Your task to perform on an android device: Open the calendar and show me this week's events Image 0: 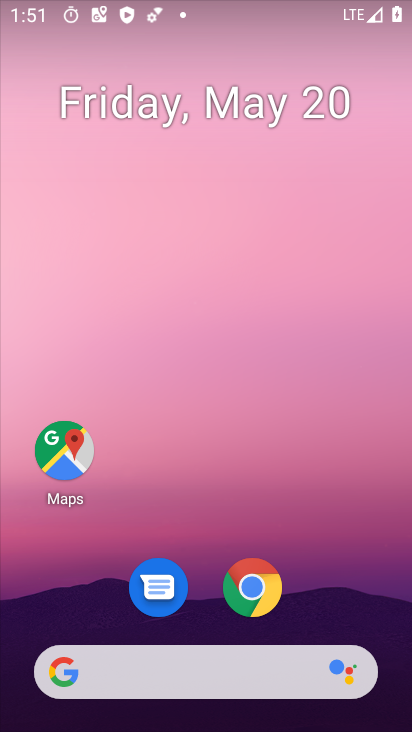
Step 0: drag from (331, 547) to (303, 139)
Your task to perform on an android device: Open the calendar and show me this week's events Image 1: 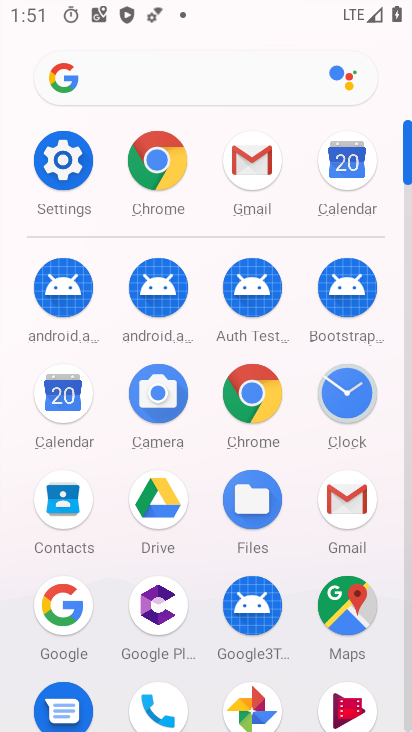
Step 1: click (56, 401)
Your task to perform on an android device: Open the calendar and show me this week's events Image 2: 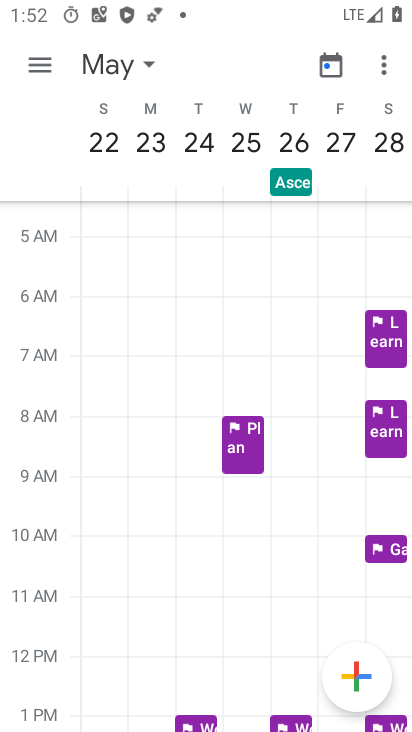
Step 2: click (110, 68)
Your task to perform on an android device: Open the calendar and show me this week's events Image 3: 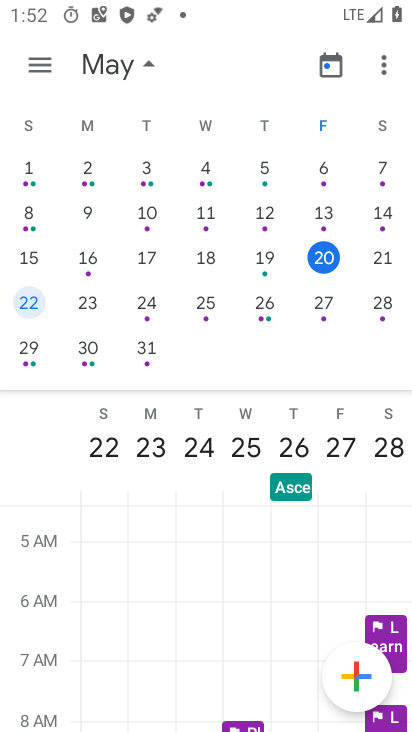
Step 3: click (364, 248)
Your task to perform on an android device: Open the calendar and show me this week's events Image 4: 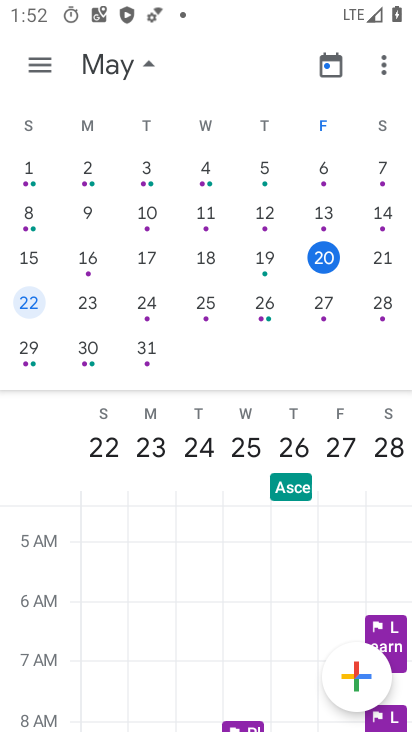
Step 4: click (324, 253)
Your task to perform on an android device: Open the calendar and show me this week's events Image 5: 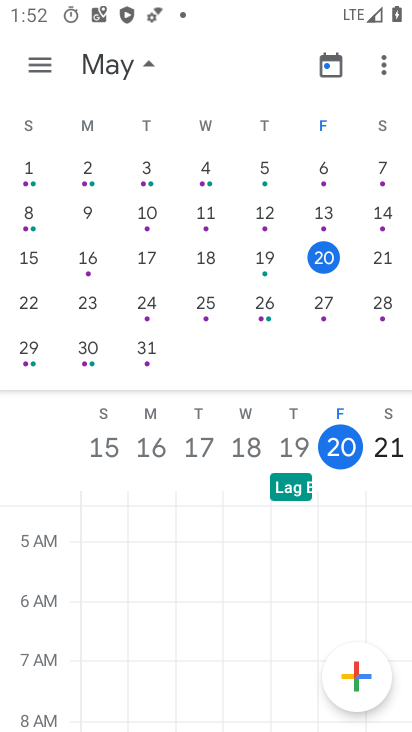
Step 5: task complete